Your task to perform on an android device: install app "Pinterest" Image 0: 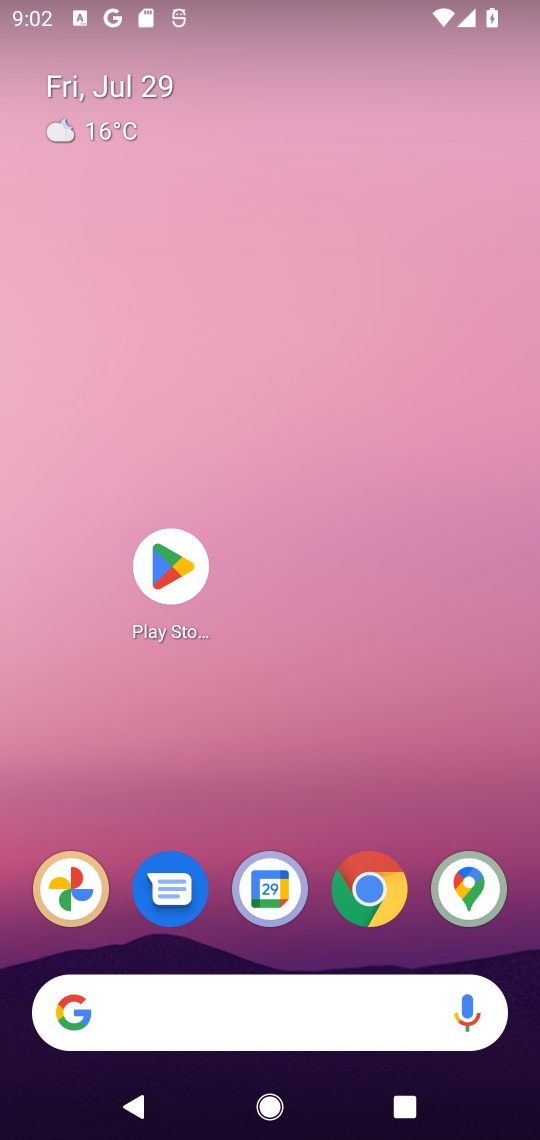
Step 0: click (171, 553)
Your task to perform on an android device: install app "Pinterest" Image 1: 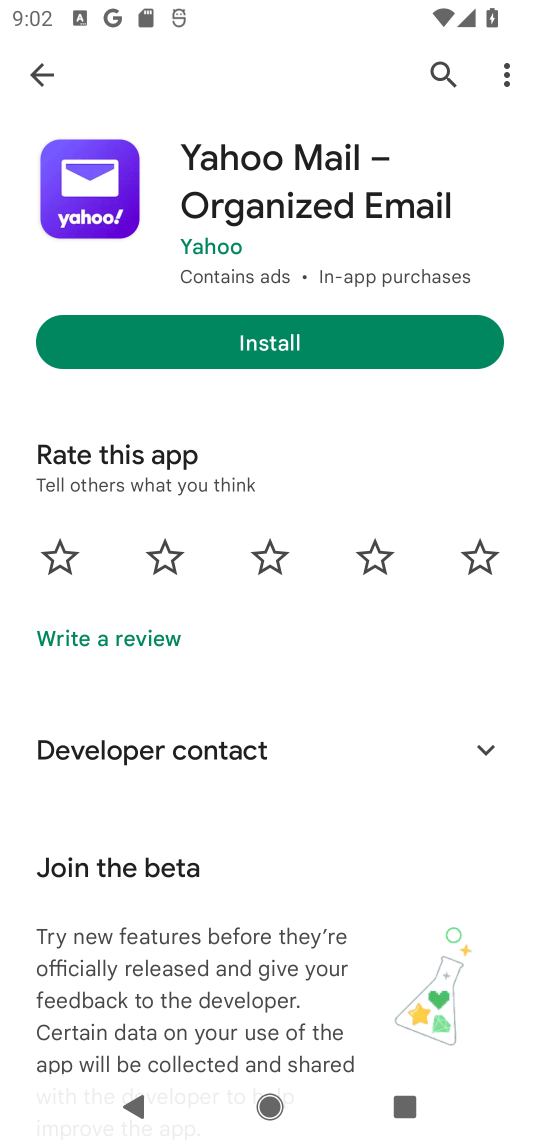
Step 1: click (438, 65)
Your task to perform on an android device: install app "Pinterest" Image 2: 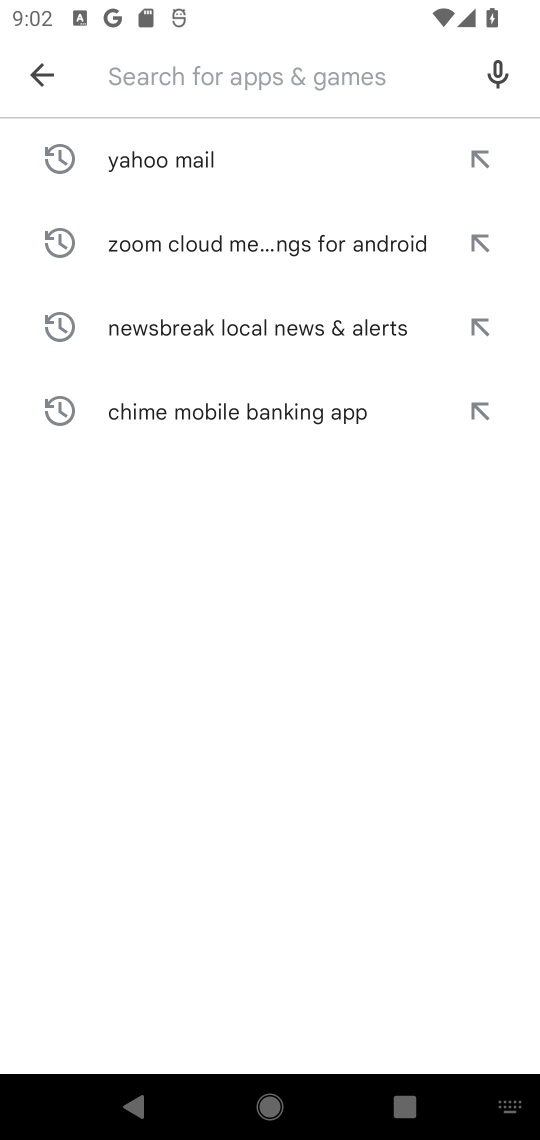
Step 2: type "Pinterest"
Your task to perform on an android device: install app "Pinterest" Image 3: 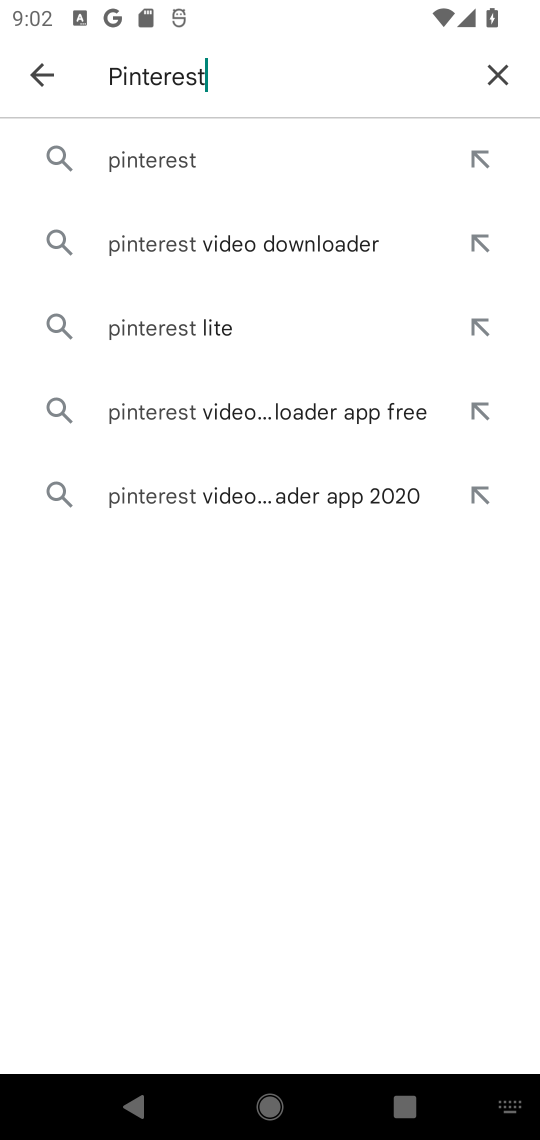
Step 3: click (190, 164)
Your task to perform on an android device: install app "Pinterest" Image 4: 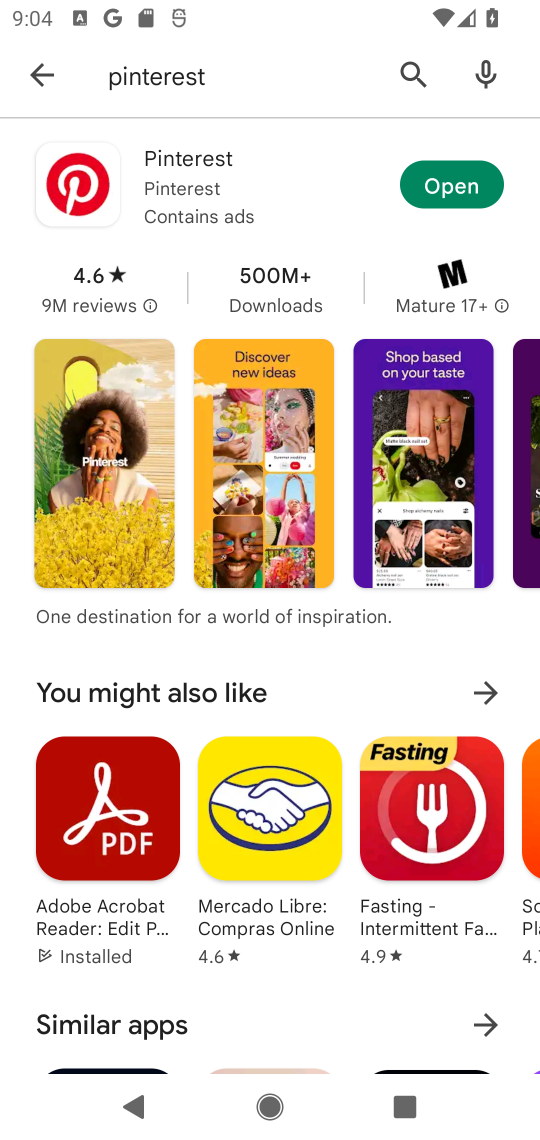
Step 4: task complete